Your task to perform on an android device: Go to CNN.com Image 0: 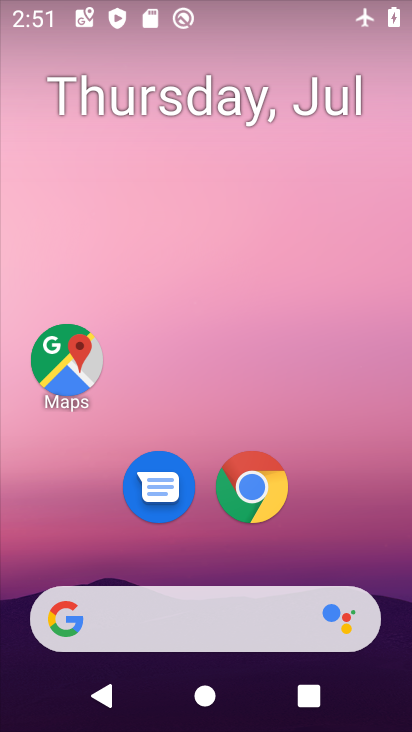
Step 0: drag from (377, 565) to (364, 216)
Your task to perform on an android device: Go to CNN.com Image 1: 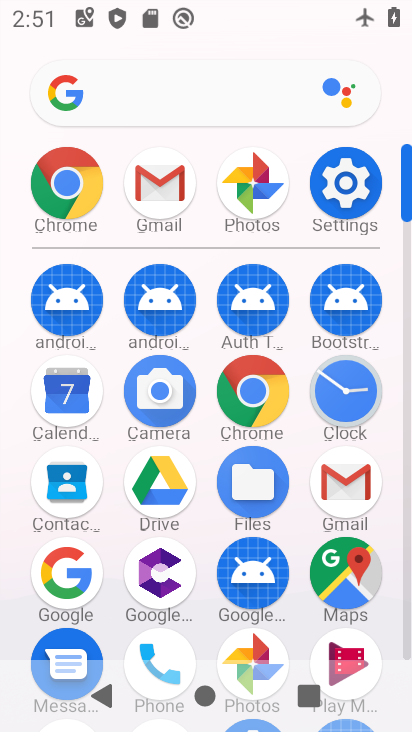
Step 1: click (270, 389)
Your task to perform on an android device: Go to CNN.com Image 2: 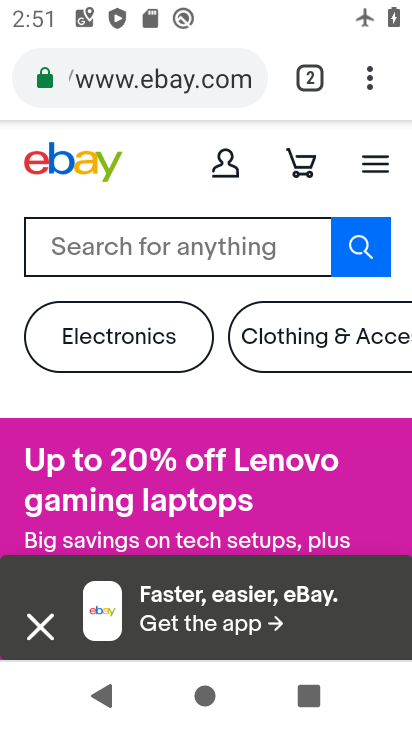
Step 2: click (187, 92)
Your task to perform on an android device: Go to CNN.com Image 3: 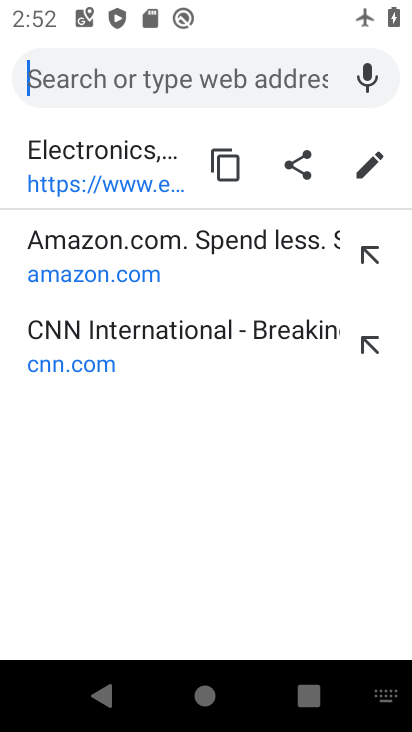
Step 3: type "cnn.com"
Your task to perform on an android device: Go to CNN.com Image 4: 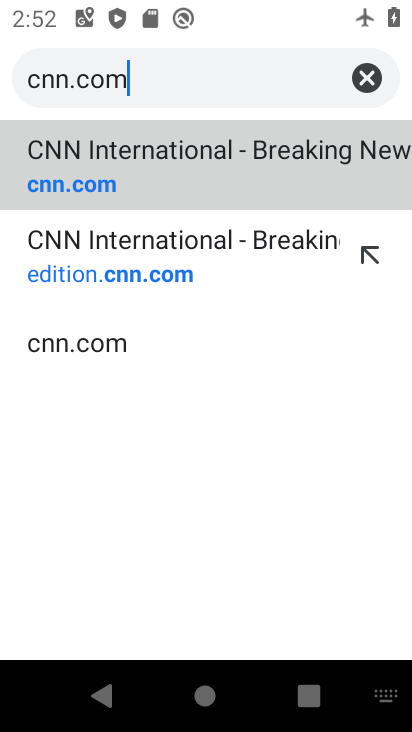
Step 4: click (284, 154)
Your task to perform on an android device: Go to CNN.com Image 5: 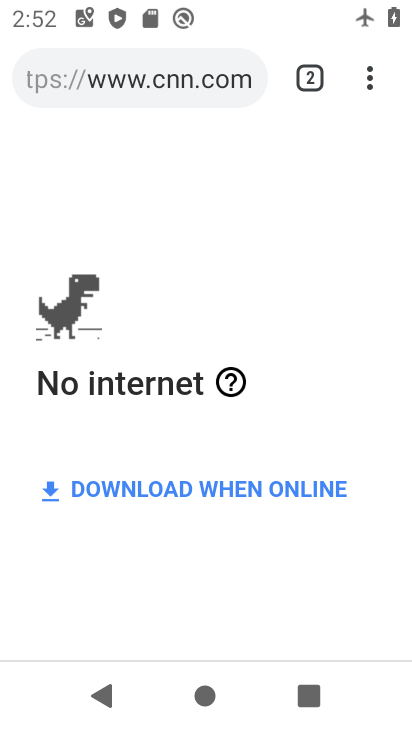
Step 5: task complete